Your task to perform on an android device: Go to notification settings Image 0: 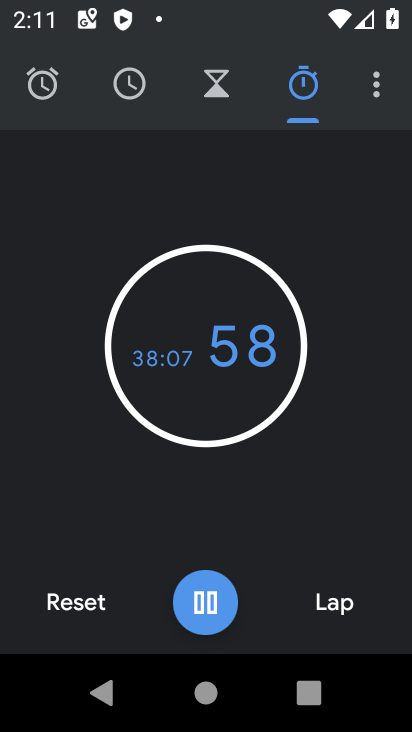
Step 0: press home button
Your task to perform on an android device: Go to notification settings Image 1: 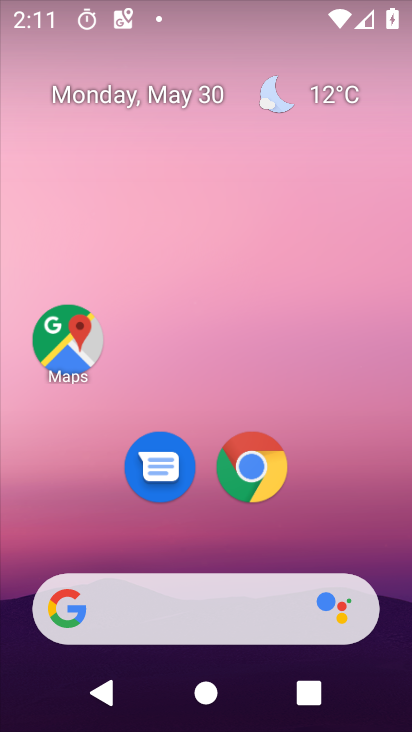
Step 1: drag from (383, 516) to (283, 27)
Your task to perform on an android device: Go to notification settings Image 2: 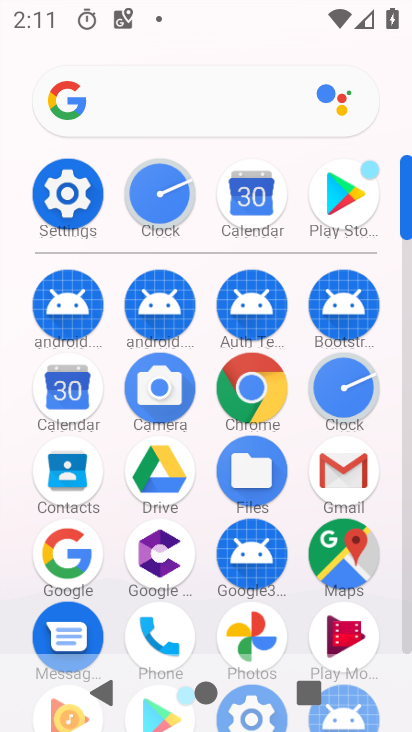
Step 2: click (84, 209)
Your task to perform on an android device: Go to notification settings Image 3: 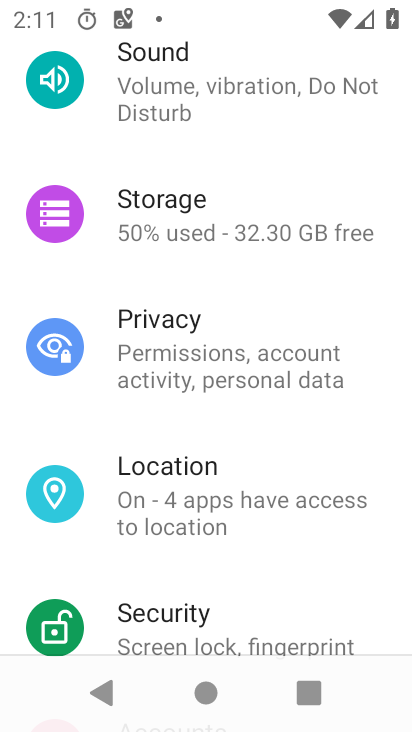
Step 3: drag from (224, 132) to (314, 543)
Your task to perform on an android device: Go to notification settings Image 4: 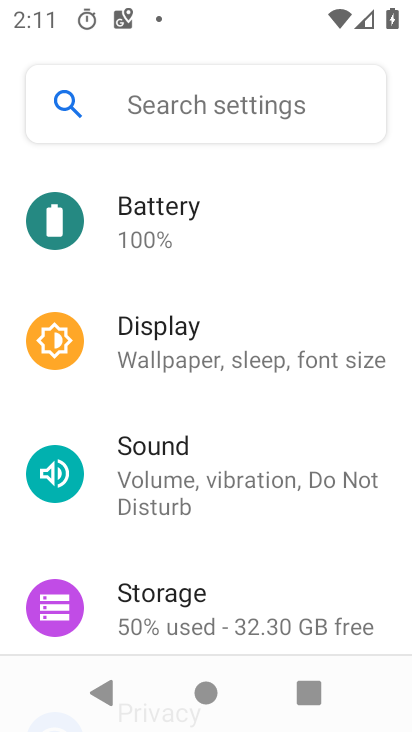
Step 4: drag from (280, 242) to (305, 646)
Your task to perform on an android device: Go to notification settings Image 5: 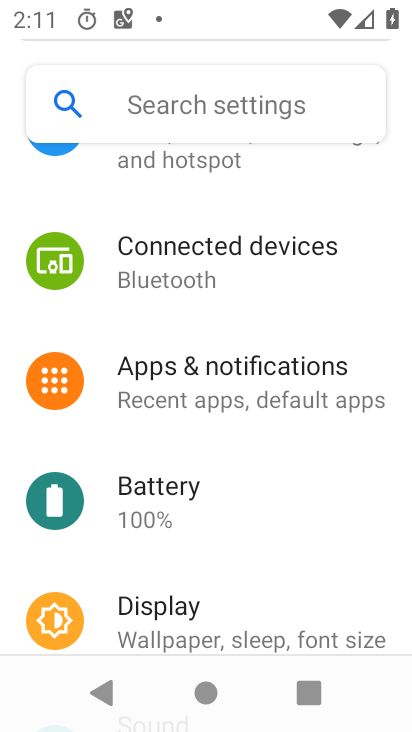
Step 5: click (233, 372)
Your task to perform on an android device: Go to notification settings Image 6: 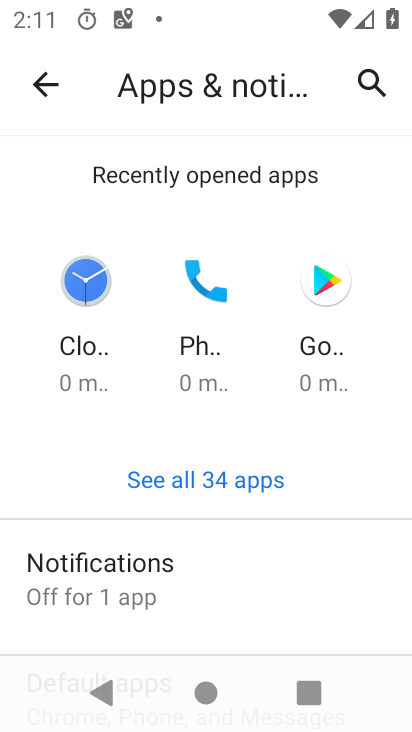
Step 6: click (88, 585)
Your task to perform on an android device: Go to notification settings Image 7: 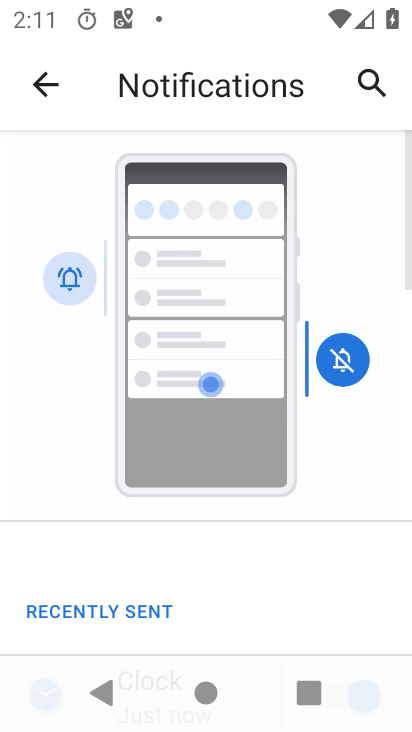
Step 7: drag from (289, 608) to (290, 249)
Your task to perform on an android device: Go to notification settings Image 8: 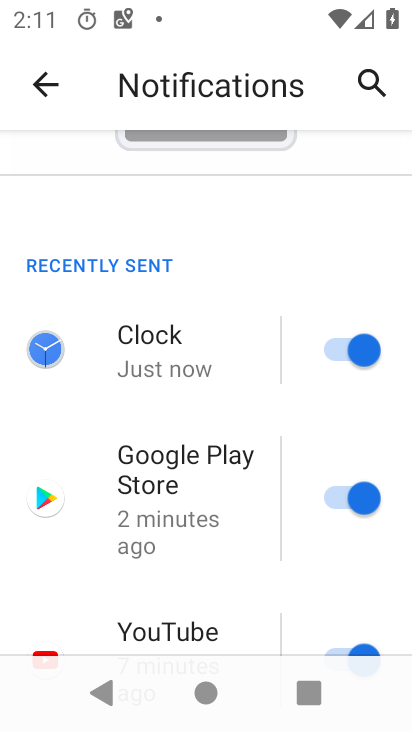
Step 8: drag from (251, 472) to (247, 364)
Your task to perform on an android device: Go to notification settings Image 9: 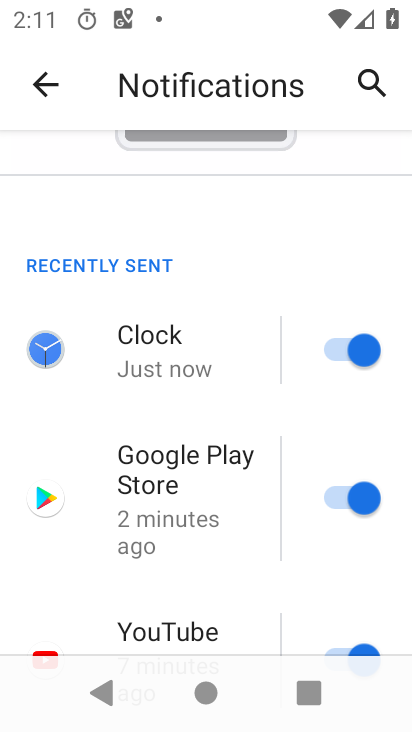
Step 9: drag from (243, 625) to (274, 338)
Your task to perform on an android device: Go to notification settings Image 10: 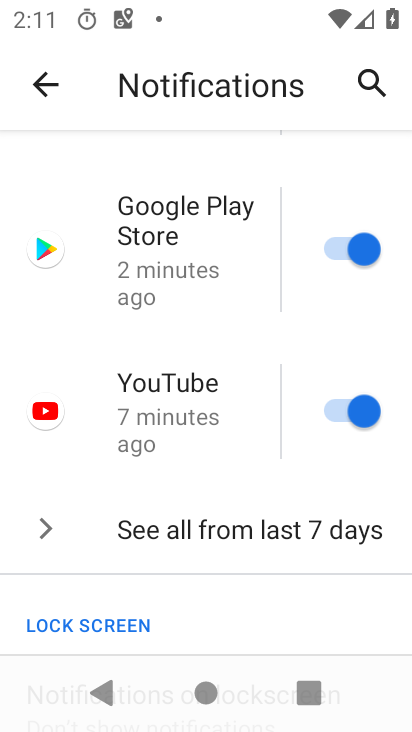
Step 10: drag from (242, 620) to (249, 350)
Your task to perform on an android device: Go to notification settings Image 11: 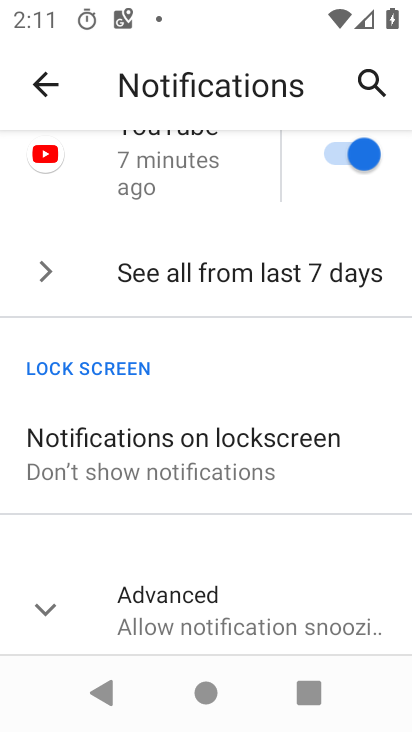
Step 11: drag from (194, 573) to (228, 336)
Your task to perform on an android device: Go to notification settings Image 12: 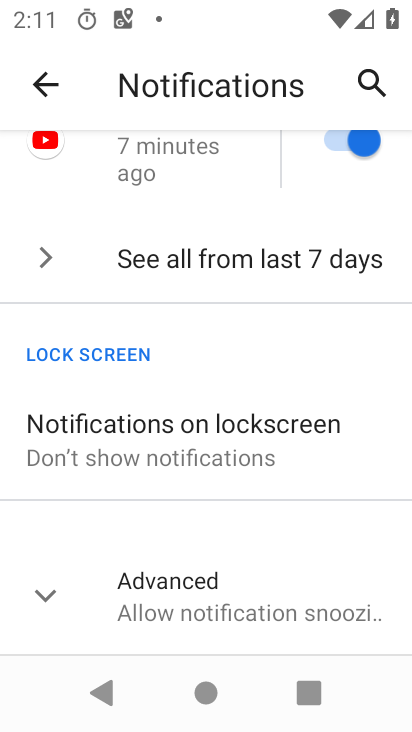
Step 12: click (47, 585)
Your task to perform on an android device: Go to notification settings Image 13: 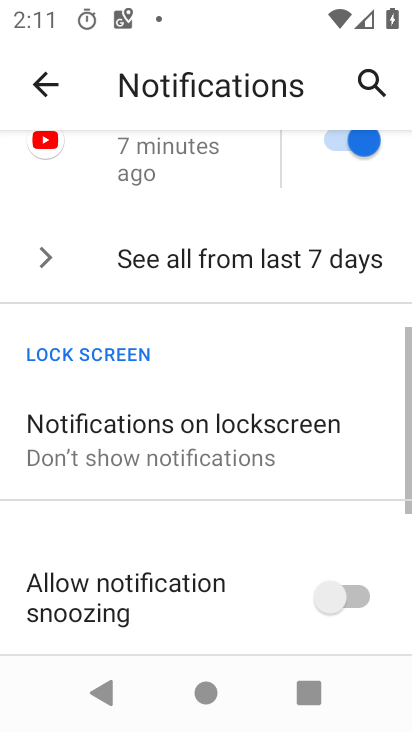
Step 13: task complete